Your task to perform on an android device: Open eBay Image 0: 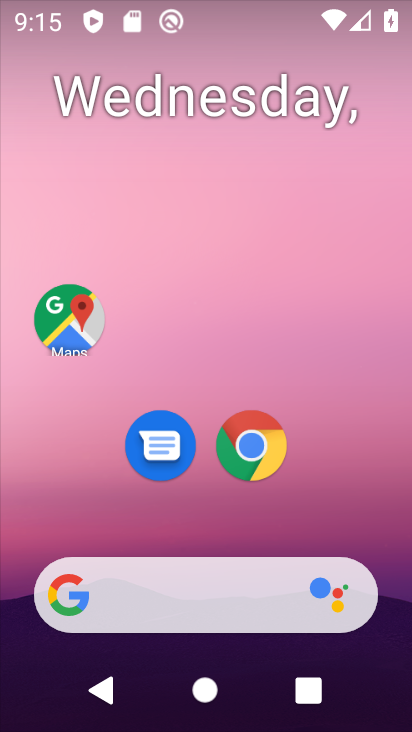
Step 0: press home button
Your task to perform on an android device: Open eBay Image 1: 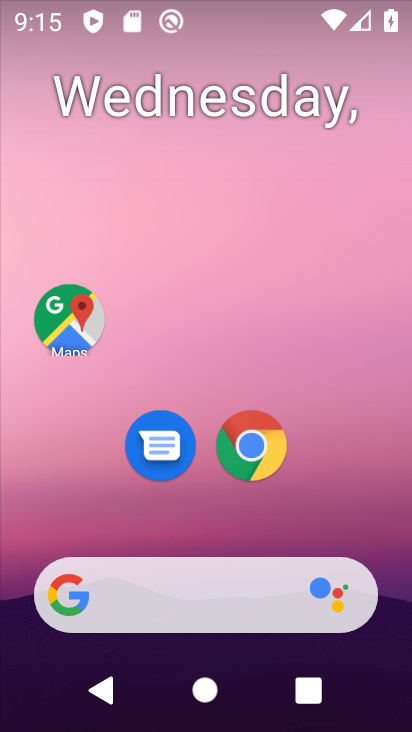
Step 1: drag from (370, 459) to (349, 19)
Your task to perform on an android device: Open eBay Image 2: 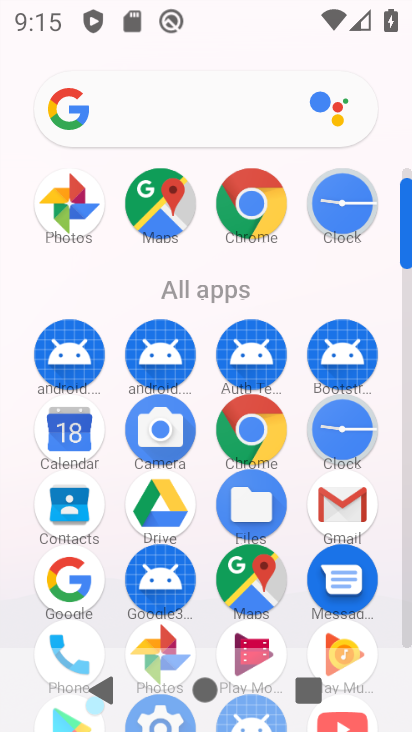
Step 2: click (265, 198)
Your task to perform on an android device: Open eBay Image 3: 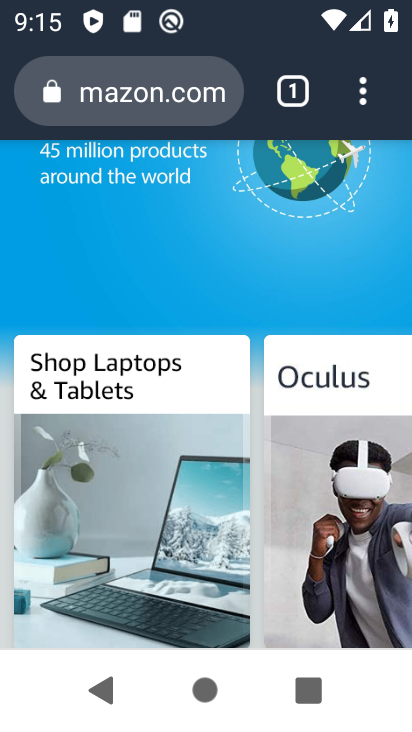
Step 3: click (167, 103)
Your task to perform on an android device: Open eBay Image 4: 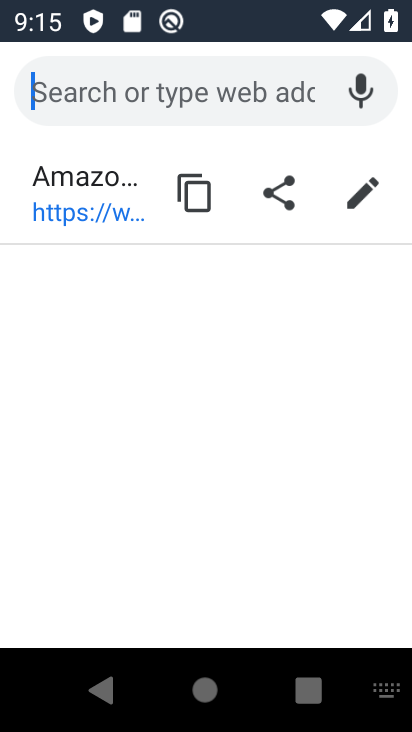
Step 4: type "ebay"
Your task to perform on an android device: Open eBay Image 5: 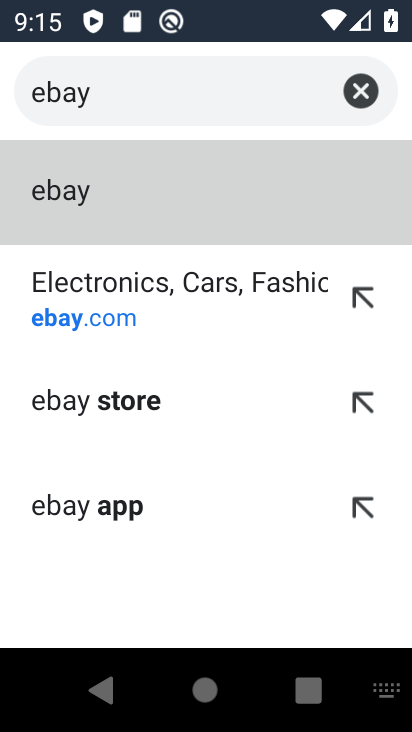
Step 5: click (82, 207)
Your task to perform on an android device: Open eBay Image 6: 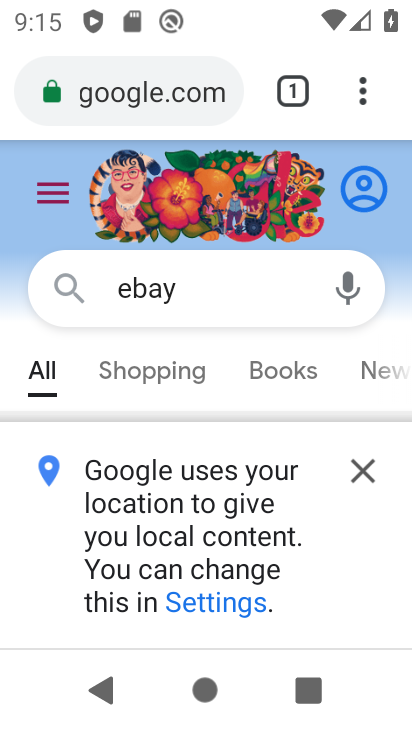
Step 6: click (370, 479)
Your task to perform on an android device: Open eBay Image 7: 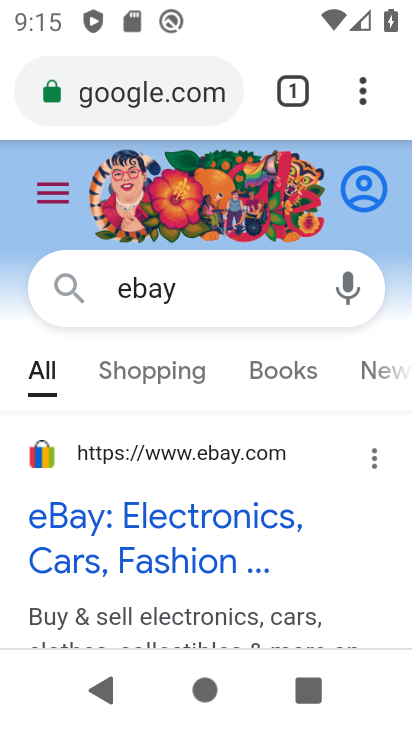
Step 7: click (194, 559)
Your task to perform on an android device: Open eBay Image 8: 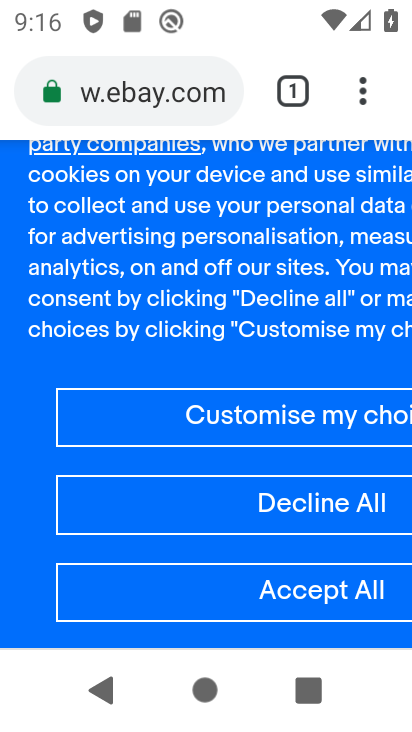
Step 8: task complete